Your task to perform on an android device: Play the new Katy Perry video on YouTube Image 0: 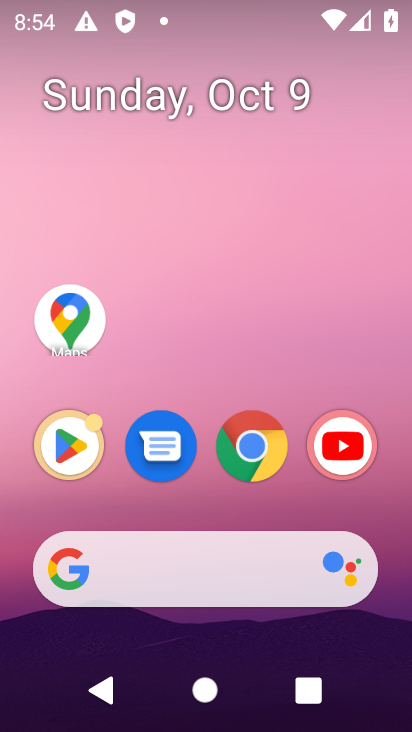
Step 0: click (352, 457)
Your task to perform on an android device: Play the new Katy Perry video on YouTube Image 1: 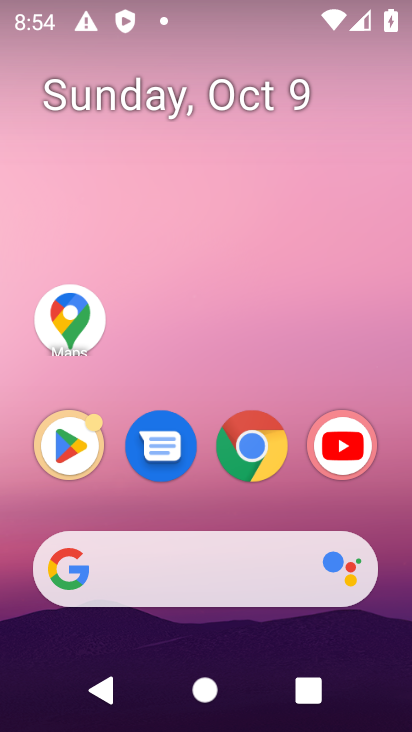
Step 1: click (352, 457)
Your task to perform on an android device: Play the new Katy Perry video on YouTube Image 2: 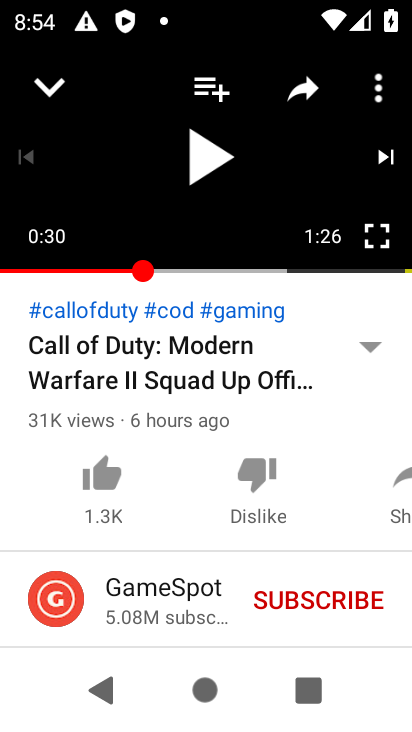
Step 2: click (48, 90)
Your task to perform on an android device: Play the new Katy Perry video on YouTube Image 3: 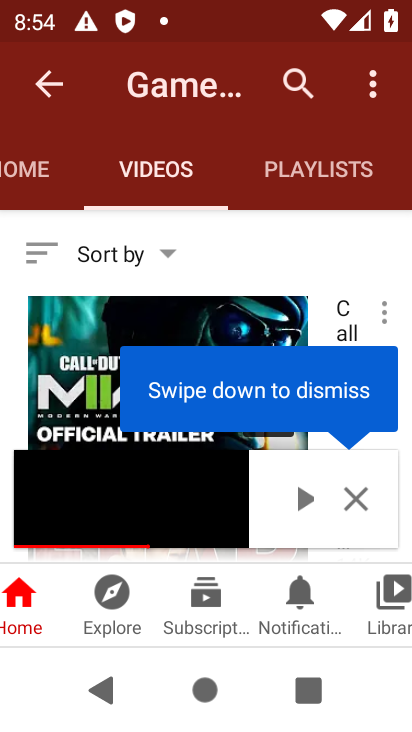
Step 3: click (292, 86)
Your task to perform on an android device: Play the new Katy Perry video on YouTube Image 4: 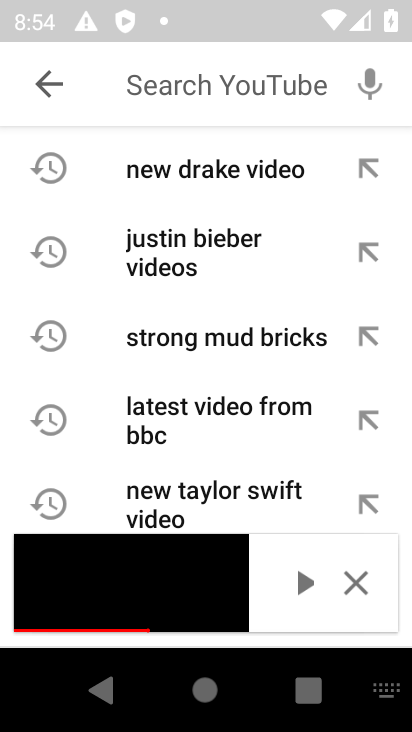
Step 4: type "Katy Perry "
Your task to perform on an android device: Play the new Katy Perry video on YouTube Image 5: 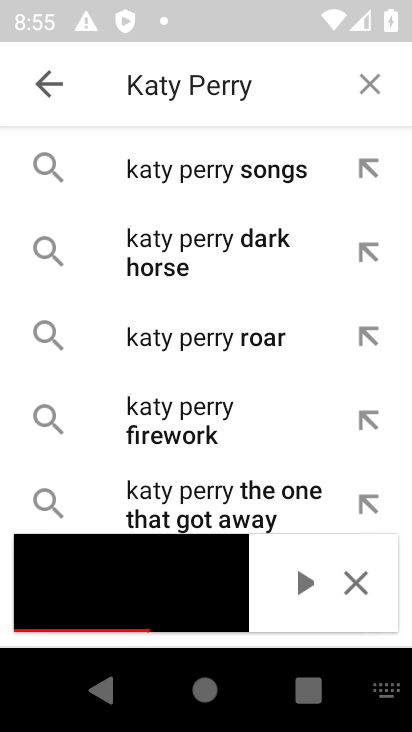
Step 5: type "video"
Your task to perform on an android device: Play the new Katy Perry video on YouTube Image 6: 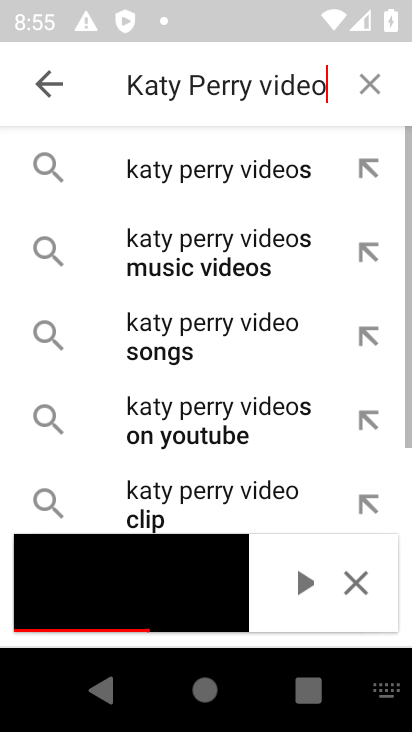
Step 6: type ""
Your task to perform on an android device: Play the new Katy Perry video on YouTube Image 7: 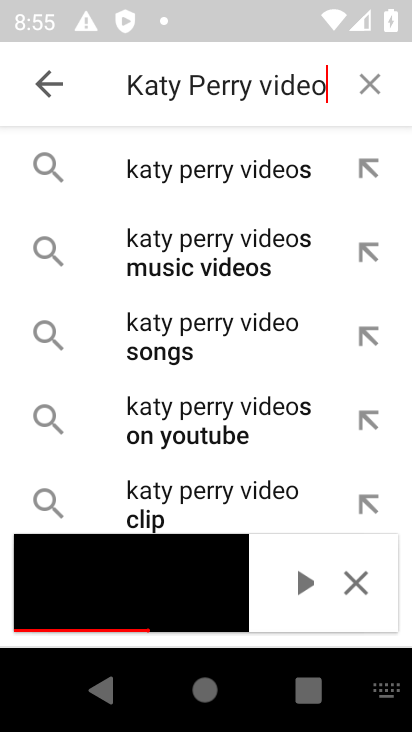
Step 7: click (211, 182)
Your task to perform on an android device: Play the new Katy Perry video on YouTube Image 8: 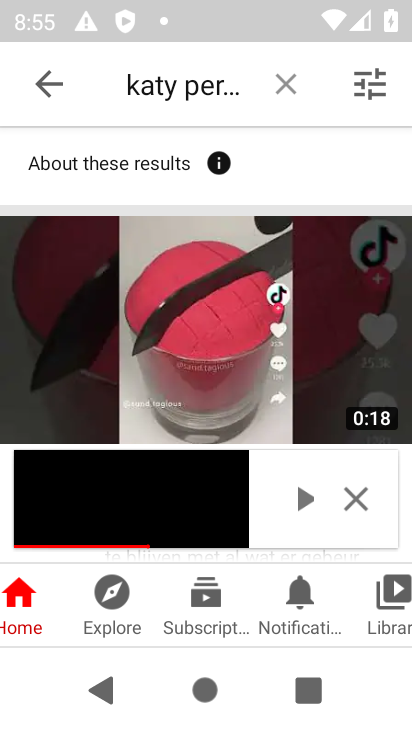
Step 8: click (353, 505)
Your task to perform on an android device: Play the new Katy Perry video on YouTube Image 9: 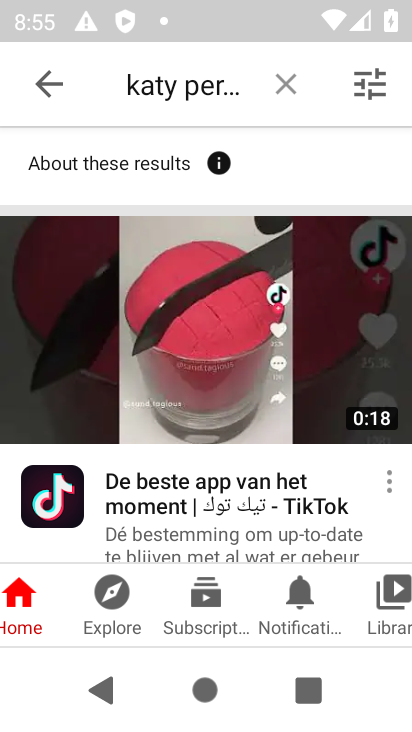
Step 9: drag from (299, 528) to (253, 142)
Your task to perform on an android device: Play the new Katy Perry video on YouTube Image 10: 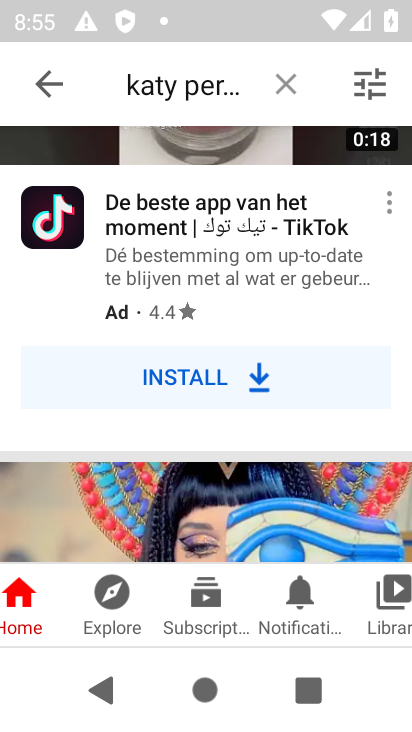
Step 10: drag from (295, 464) to (264, 155)
Your task to perform on an android device: Play the new Katy Perry video on YouTube Image 11: 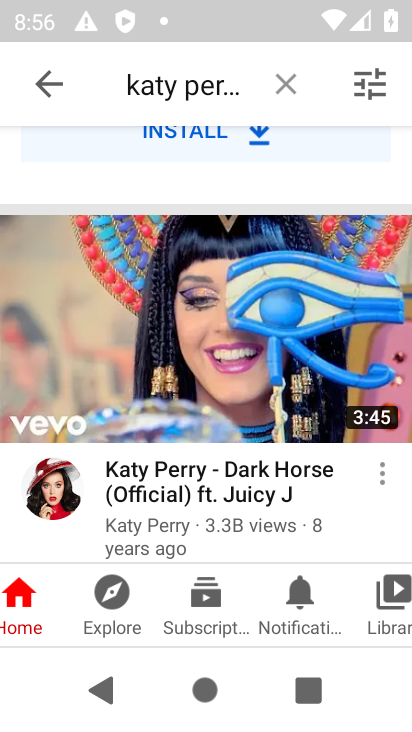
Step 11: click (282, 87)
Your task to perform on an android device: Play the new Katy Perry video on YouTube Image 12: 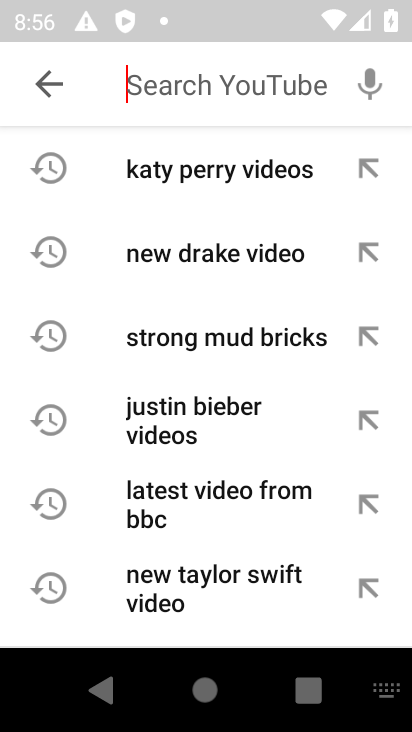
Step 12: type "new Katy Perry video"
Your task to perform on an android device: Play the new Katy Perry video on YouTube Image 13: 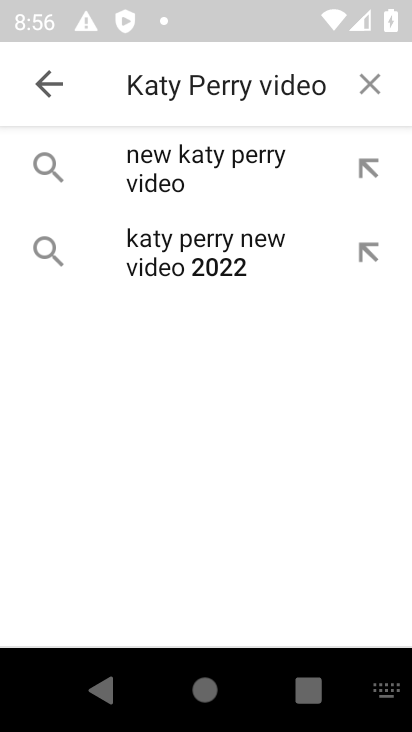
Step 13: click (224, 185)
Your task to perform on an android device: Play the new Katy Perry video on YouTube Image 14: 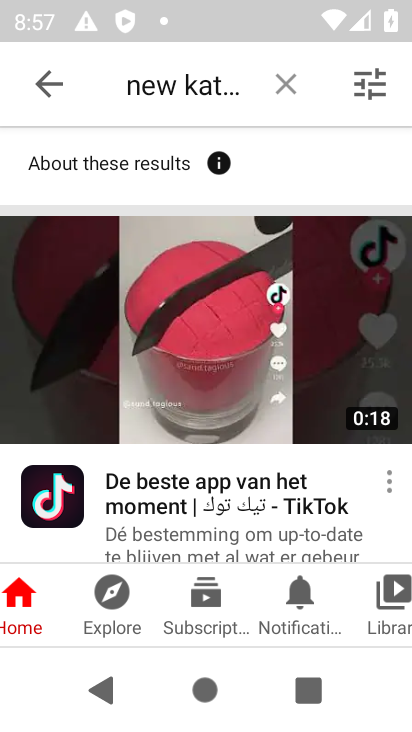
Step 14: drag from (162, 501) to (161, 184)
Your task to perform on an android device: Play the new Katy Perry video on YouTube Image 15: 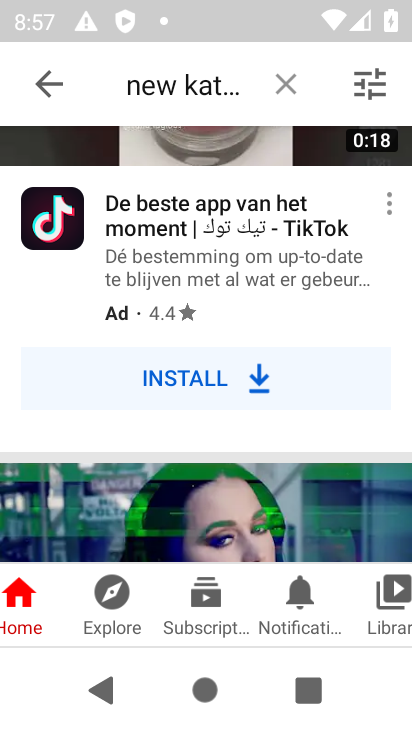
Step 15: drag from (250, 534) to (223, 196)
Your task to perform on an android device: Play the new Katy Perry video on YouTube Image 16: 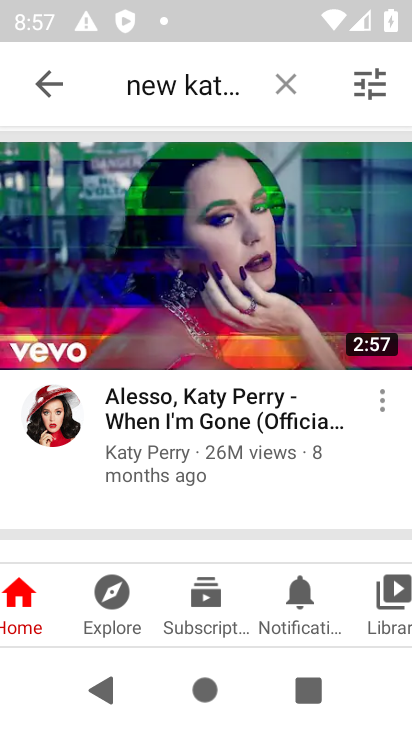
Step 16: drag from (354, 508) to (315, 239)
Your task to perform on an android device: Play the new Katy Perry video on YouTube Image 17: 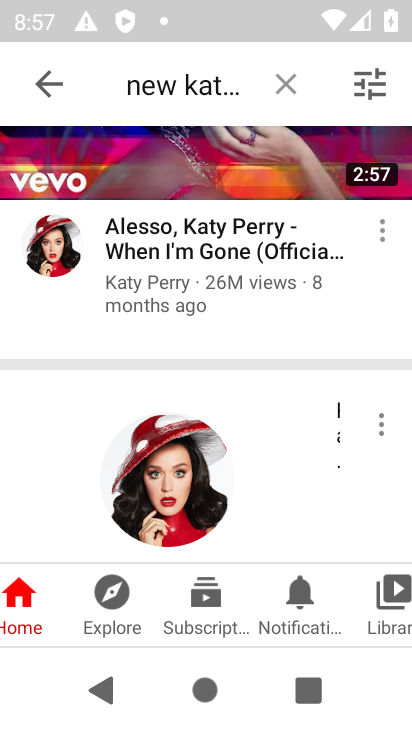
Step 17: drag from (244, 366) to (233, 183)
Your task to perform on an android device: Play the new Katy Perry video on YouTube Image 18: 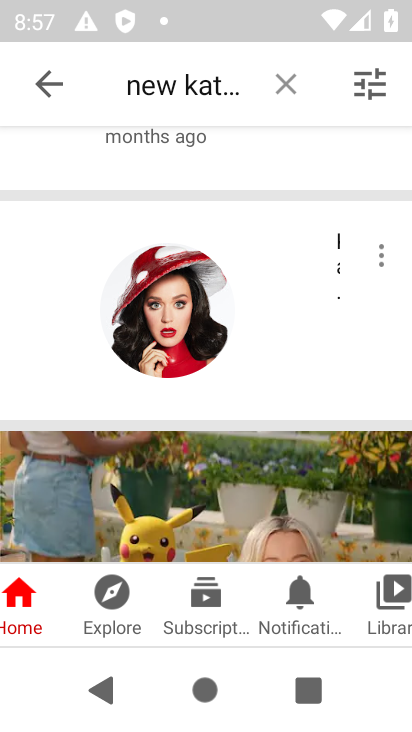
Step 18: click (164, 305)
Your task to perform on an android device: Play the new Katy Perry video on YouTube Image 19: 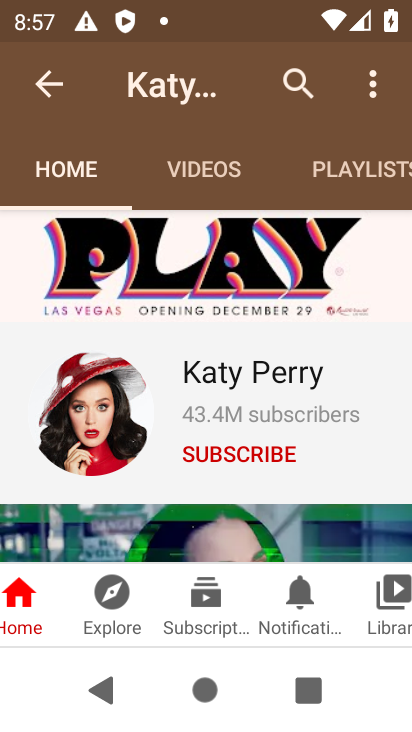
Step 19: click (191, 166)
Your task to perform on an android device: Play the new Katy Perry video on YouTube Image 20: 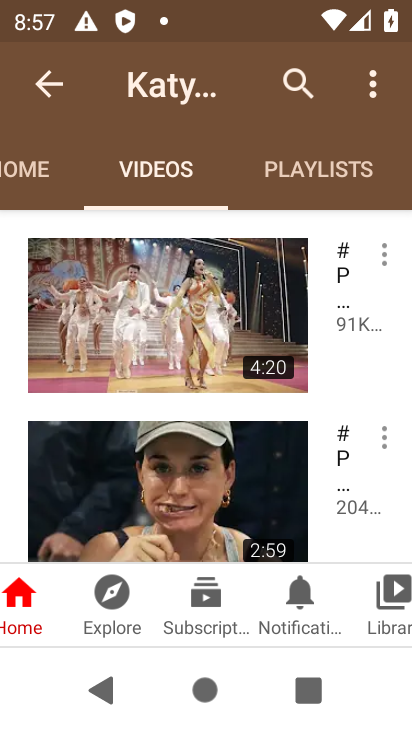
Step 20: click (164, 322)
Your task to perform on an android device: Play the new Katy Perry video on YouTube Image 21: 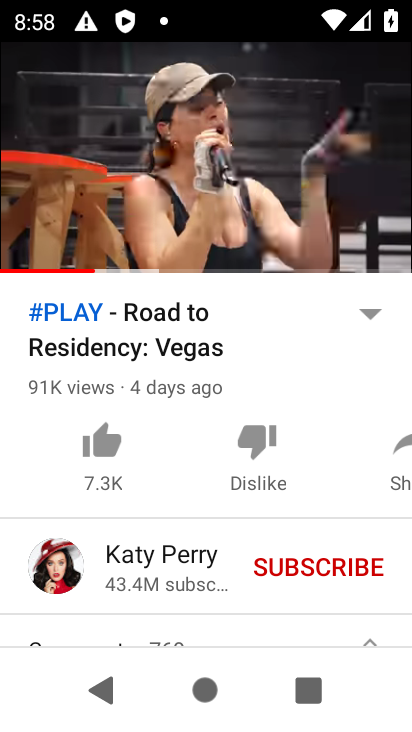
Step 21: task complete